Your task to perform on an android device: Go to internet settings Image 0: 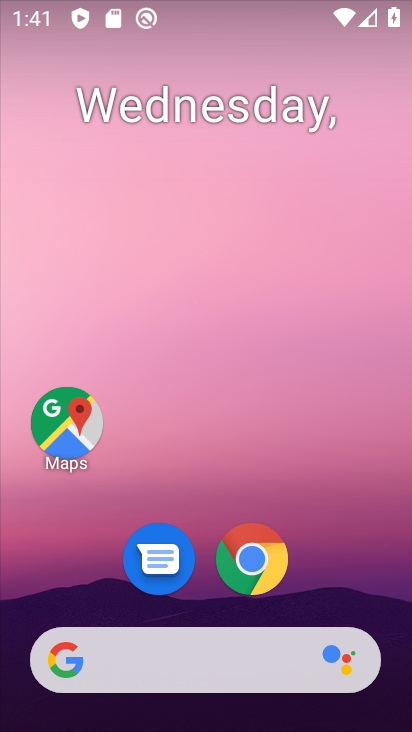
Step 0: drag from (199, 613) to (209, 148)
Your task to perform on an android device: Go to internet settings Image 1: 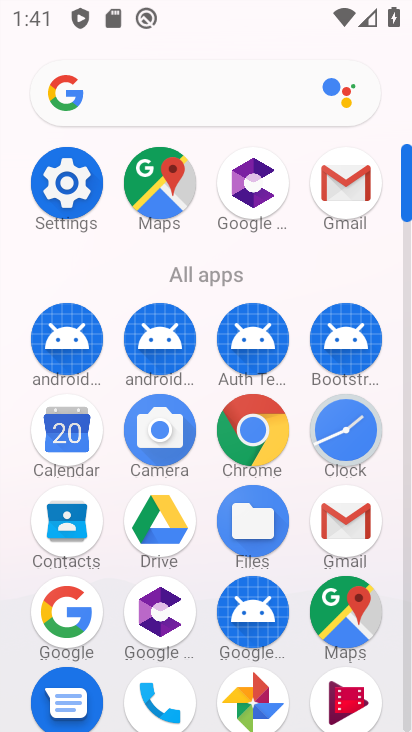
Step 1: drag from (206, 637) to (223, 219)
Your task to perform on an android device: Go to internet settings Image 2: 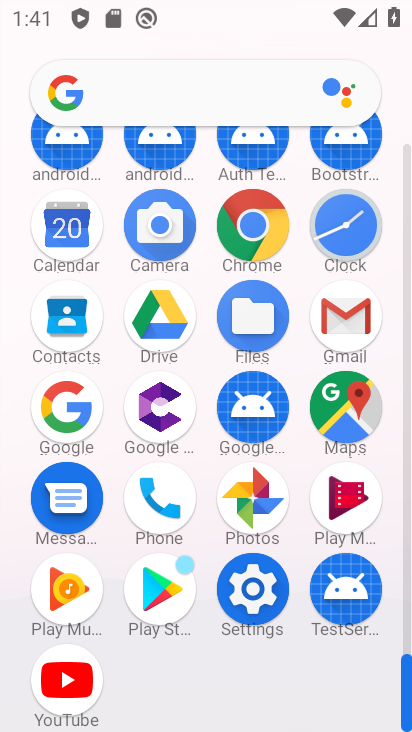
Step 2: click (267, 600)
Your task to perform on an android device: Go to internet settings Image 3: 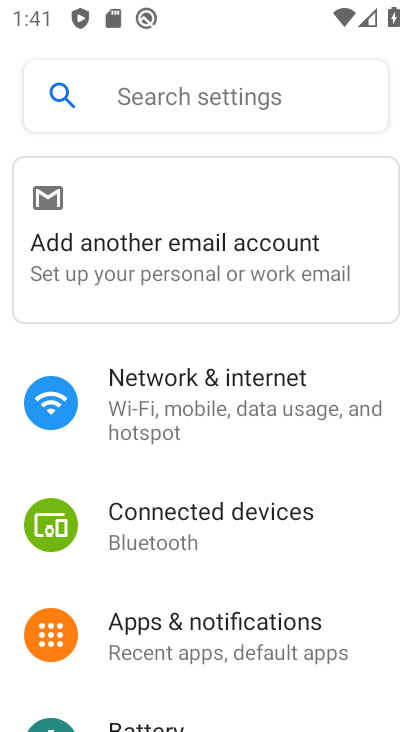
Step 3: click (238, 430)
Your task to perform on an android device: Go to internet settings Image 4: 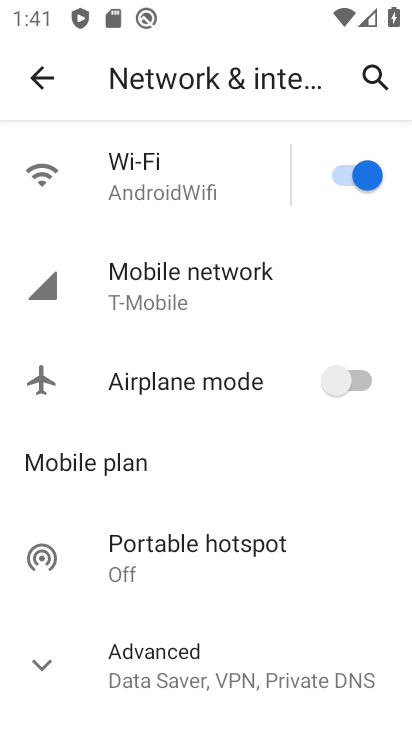
Step 4: task complete